Your task to perform on an android device: change timer sound Image 0: 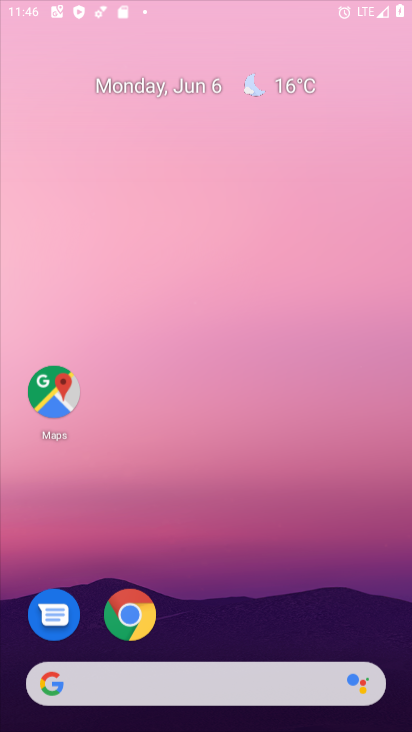
Step 0: press home button
Your task to perform on an android device: change timer sound Image 1: 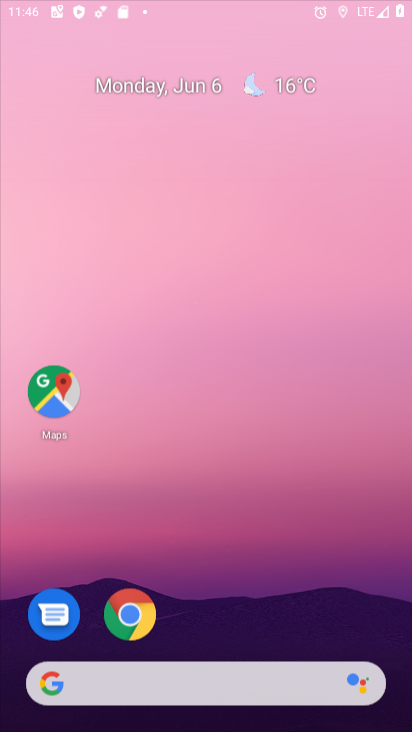
Step 1: drag from (217, 624) to (202, 107)
Your task to perform on an android device: change timer sound Image 2: 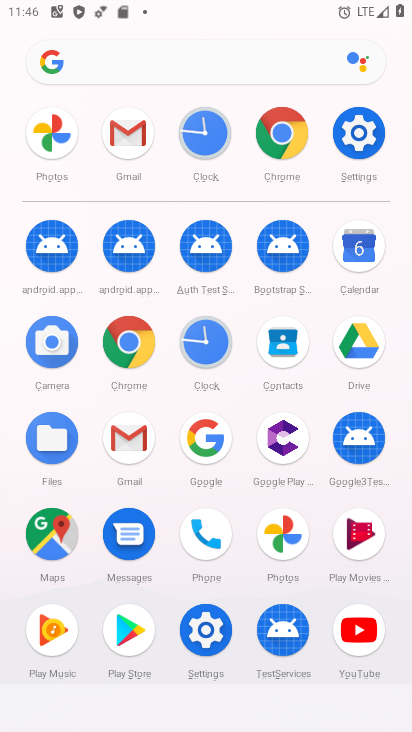
Step 2: click (204, 328)
Your task to perform on an android device: change timer sound Image 3: 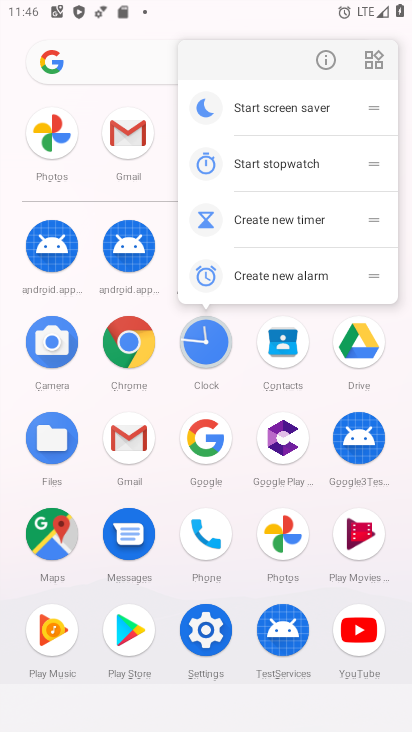
Step 3: click (201, 340)
Your task to perform on an android device: change timer sound Image 4: 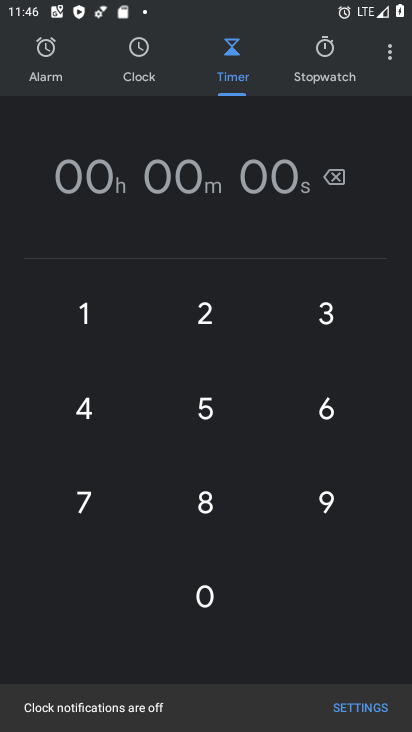
Step 4: click (391, 49)
Your task to perform on an android device: change timer sound Image 5: 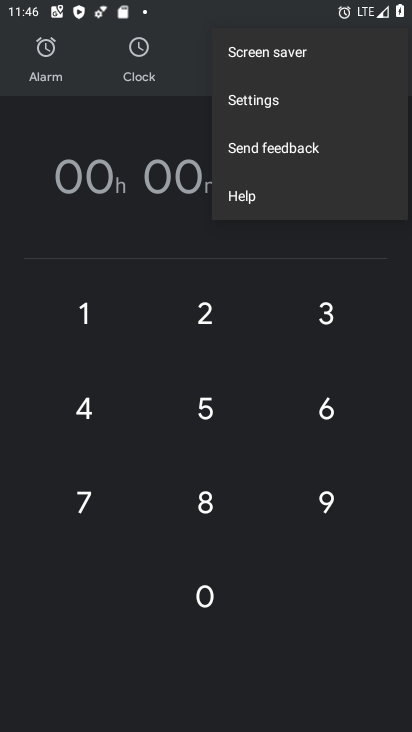
Step 5: click (279, 104)
Your task to perform on an android device: change timer sound Image 6: 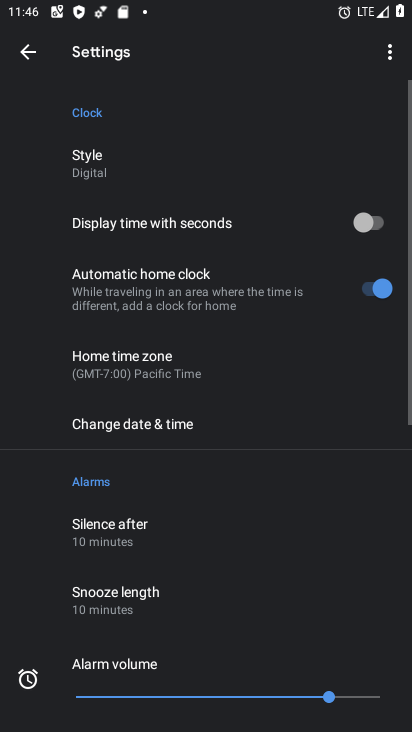
Step 6: drag from (193, 595) to (200, 152)
Your task to perform on an android device: change timer sound Image 7: 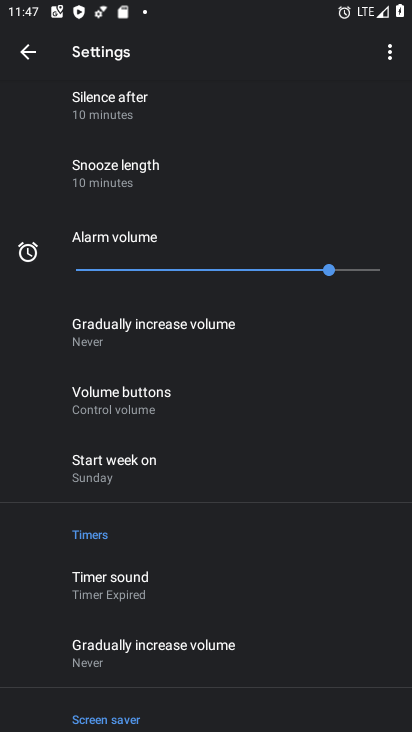
Step 7: click (152, 585)
Your task to perform on an android device: change timer sound Image 8: 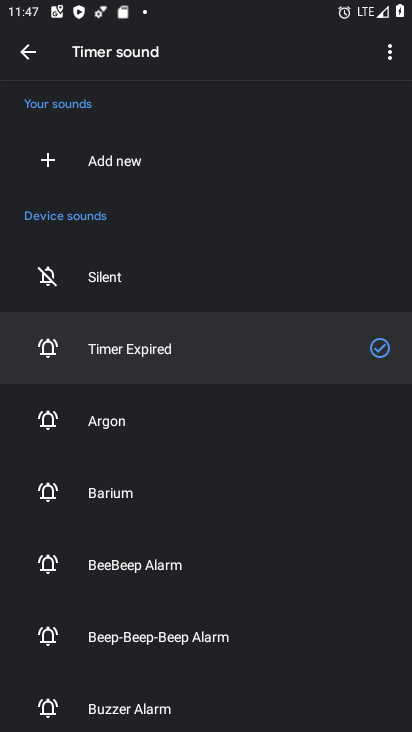
Step 8: click (195, 562)
Your task to perform on an android device: change timer sound Image 9: 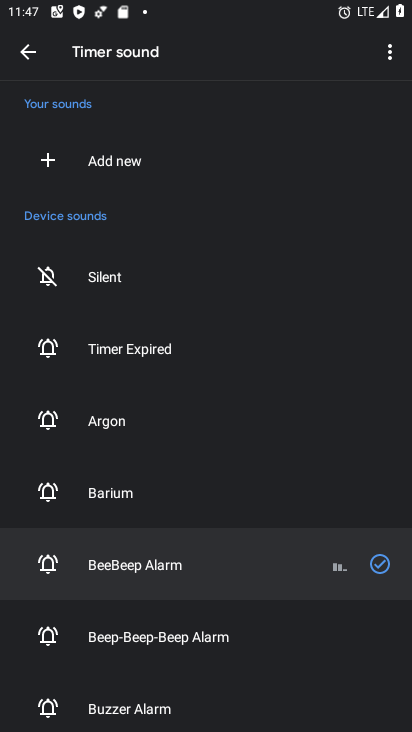
Step 9: task complete